Your task to perform on an android device: find photos in the google photos app Image 0: 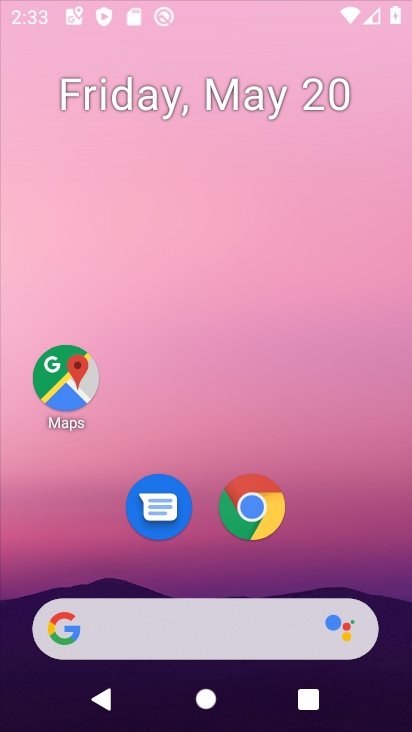
Step 0: drag from (243, 694) to (245, 202)
Your task to perform on an android device: find photos in the google photos app Image 1: 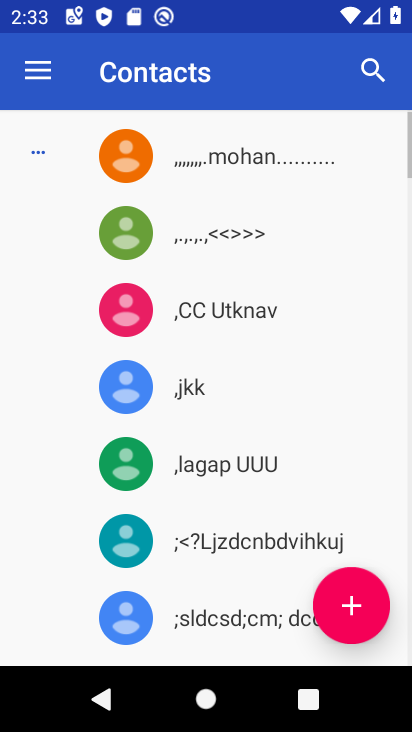
Step 1: press home button
Your task to perform on an android device: find photos in the google photos app Image 2: 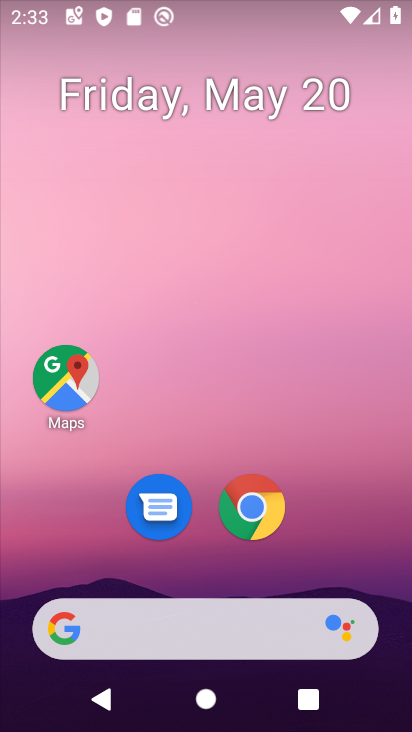
Step 2: drag from (230, 719) to (224, 72)
Your task to perform on an android device: find photos in the google photos app Image 3: 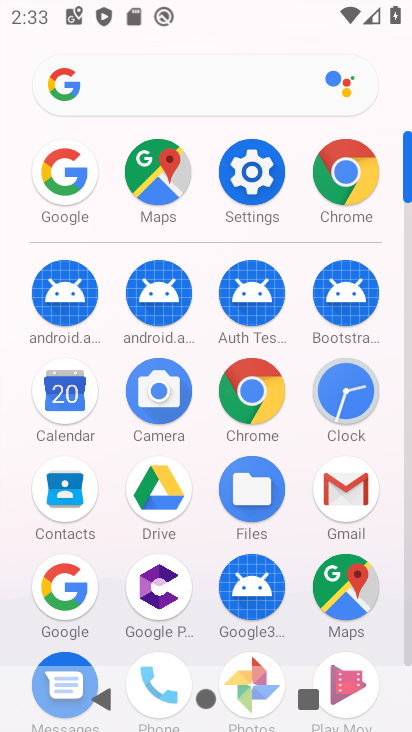
Step 3: click (247, 664)
Your task to perform on an android device: find photos in the google photos app Image 4: 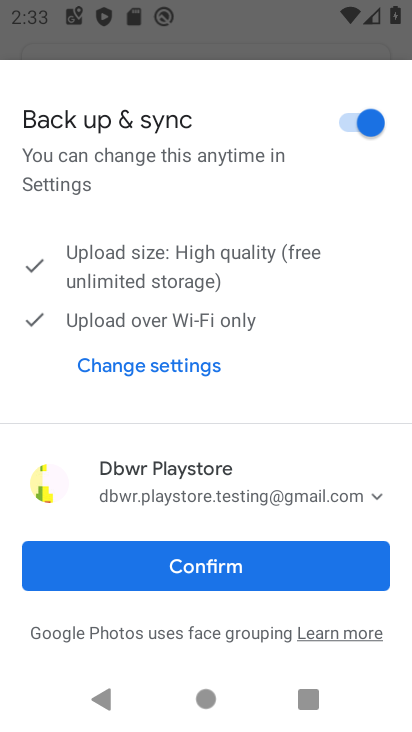
Step 4: click (229, 559)
Your task to perform on an android device: find photos in the google photos app Image 5: 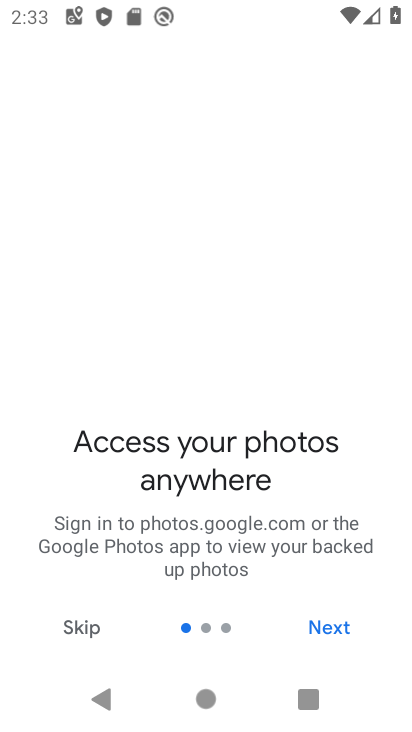
Step 5: click (322, 625)
Your task to perform on an android device: find photos in the google photos app Image 6: 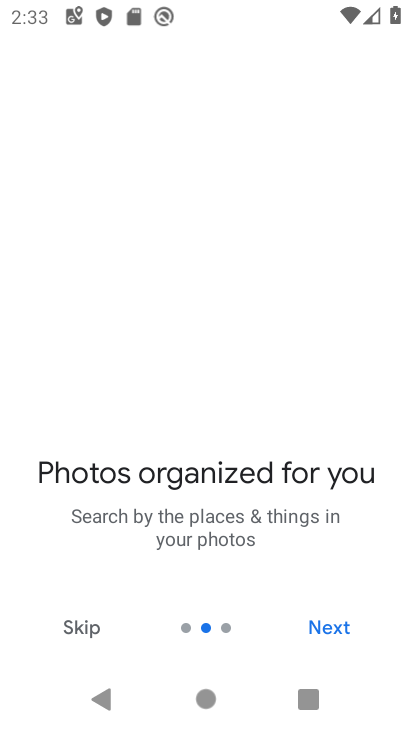
Step 6: click (322, 625)
Your task to perform on an android device: find photos in the google photos app Image 7: 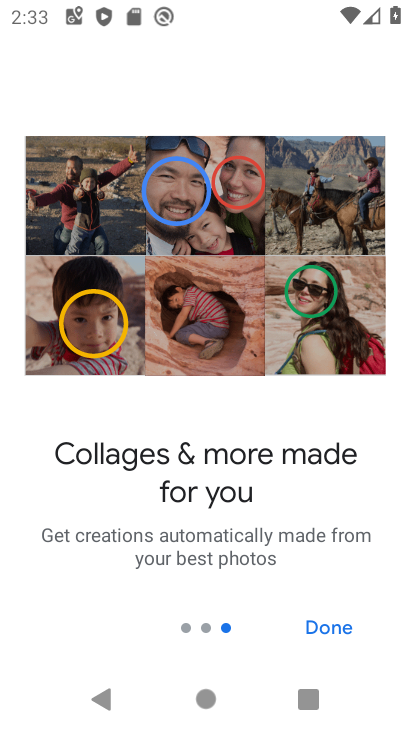
Step 7: click (322, 625)
Your task to perform on an android device: find photos in the google photos app Image 8: 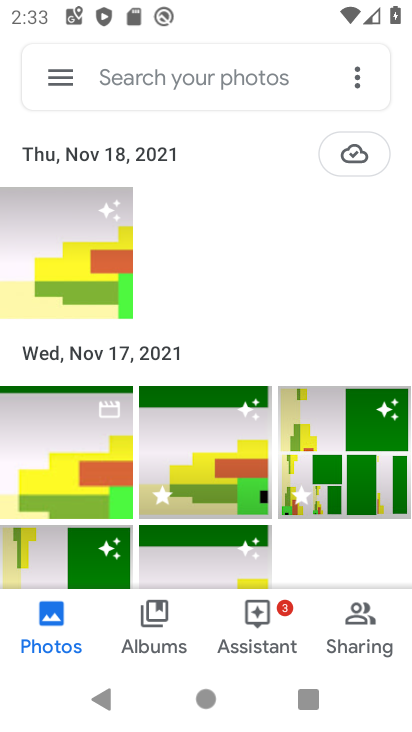
Step 8: click (74, 252)
Your task to perform on an android device: find photos in the google photos app Image 9: 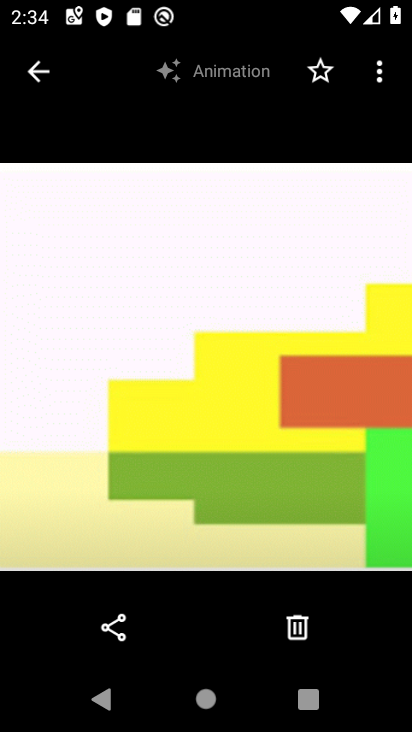
Step 9: task complete